Your task to perform on an android device: Clear the cart on bestbuy. Search for logitech g pro on bestbuy, select the first entry, add it to the cart, then select checkout. Image 0: 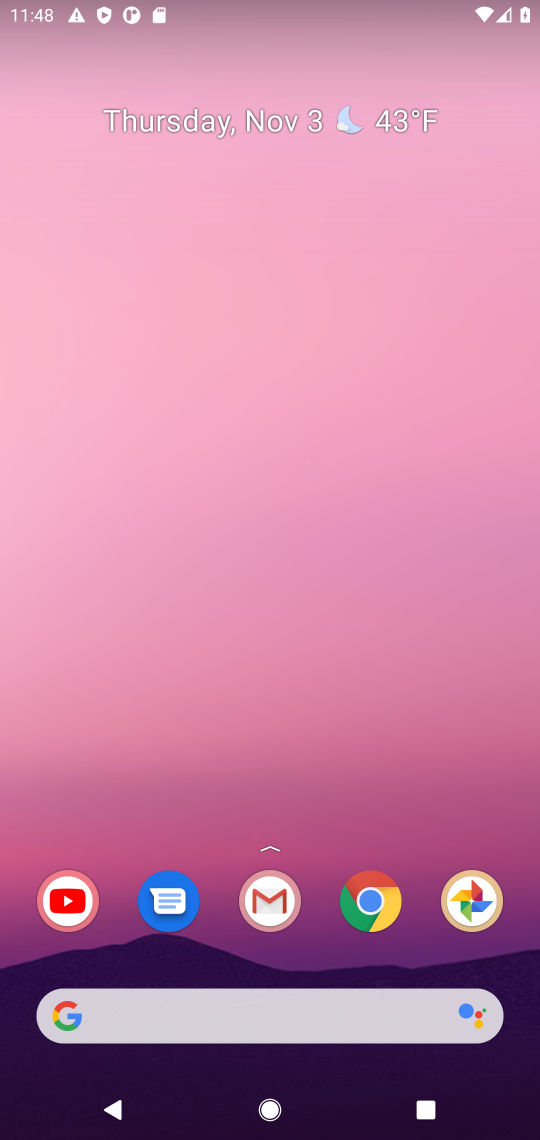
Step 0: click (382, 910)
Your task to perform on an android device: Clear the cart on bestbuy. Search for logitech g pro on bestbuy, select the first entry, add it to the cart, then select checkout. Image 1: 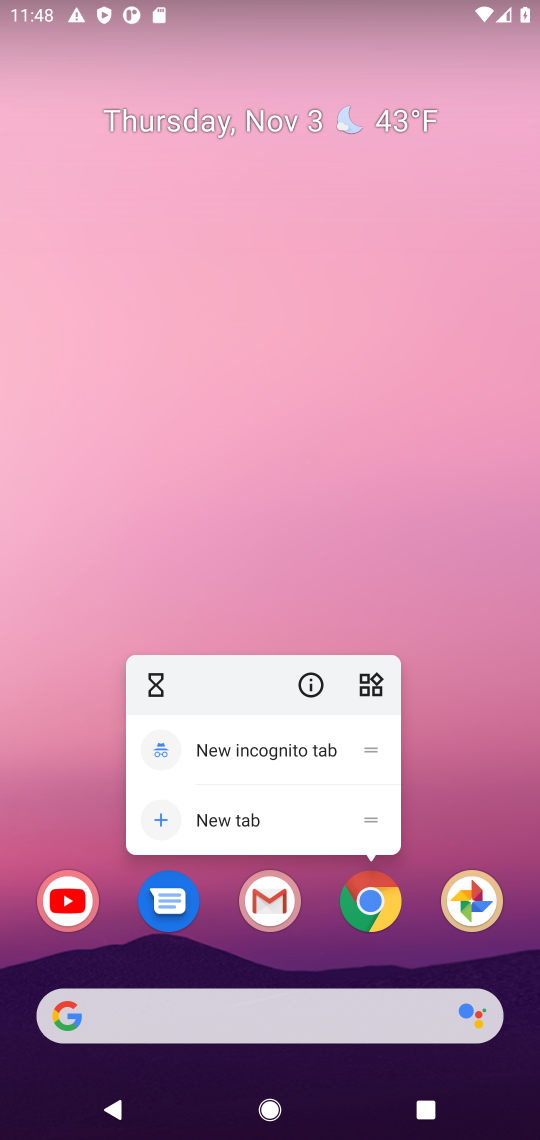
Step 1: click (382, 910)
Your task to perform on an android device: Clear the cart on bestbuy. Search for logitech g pro on bestbuy, select the first entry, add it to the cart, then select checkout. Image 2: 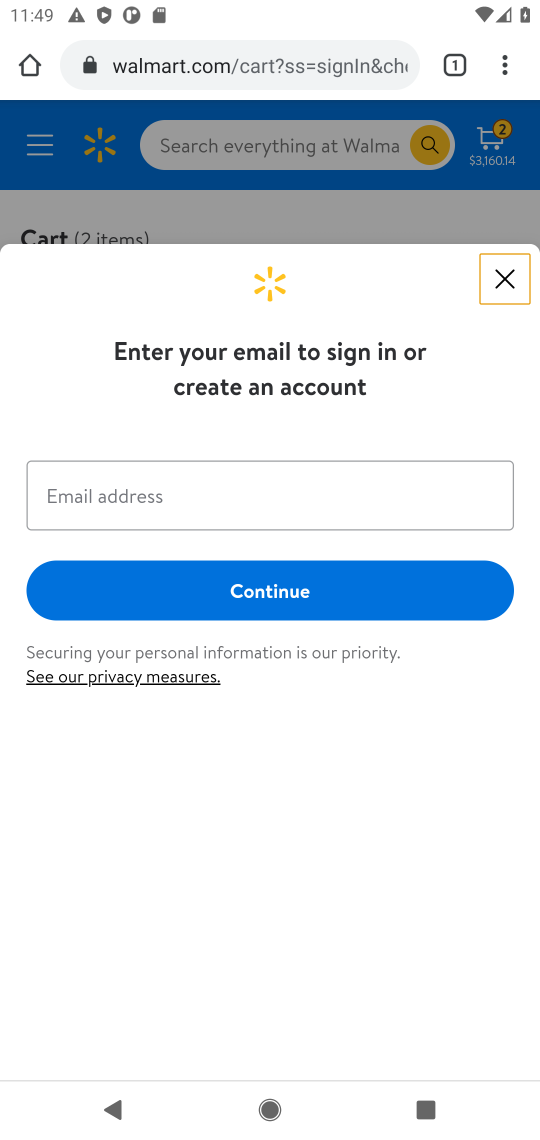
Step 2: click (514, 279)
Your task to perform on an android device: Clear the cart on bestbuy. Search for logitech g pro on bestbuy, select the first entry, add it to the cart, then select checkout. Image 3: 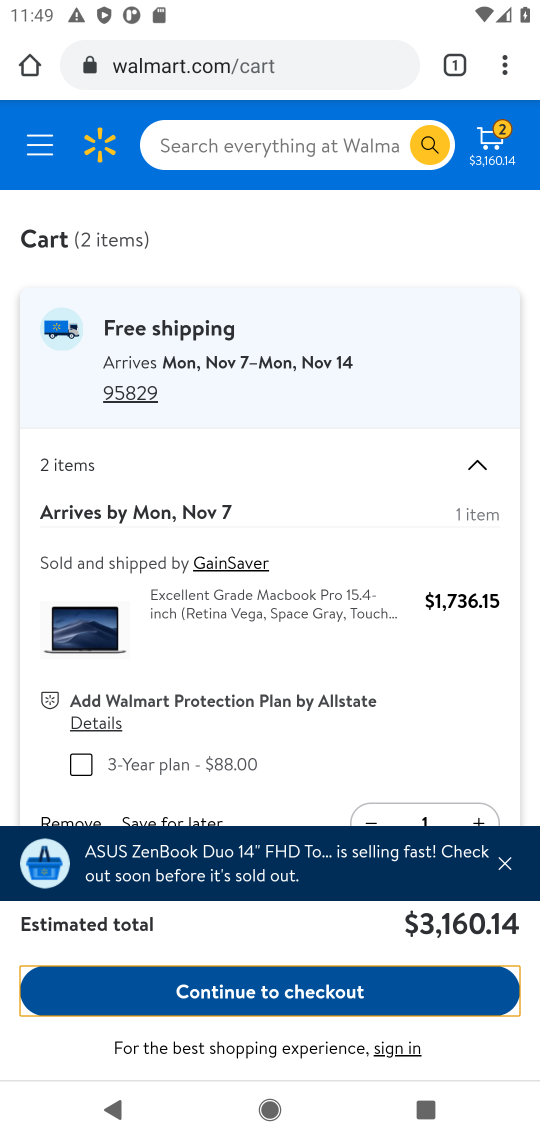
Step 3: click (244, 62)
Your task to perform on an android device: Clear the cart on bestbuy. Search for logitech g pro on bestbuy, select the first entry, add it to the cart, then select checkout. Image 4: 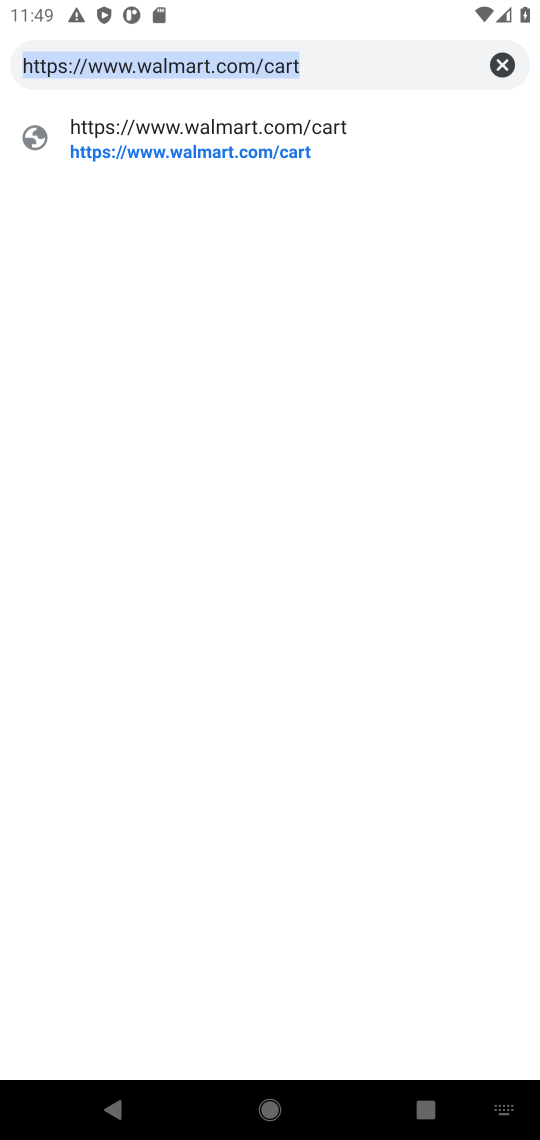
Step 4: click (509, 65)
Your task to perform on an android device: Clear the cart on bestbuy. Search for logitech g pro on bestbuy, select the first entry, add it to the cart, then select checkout. Image 5: 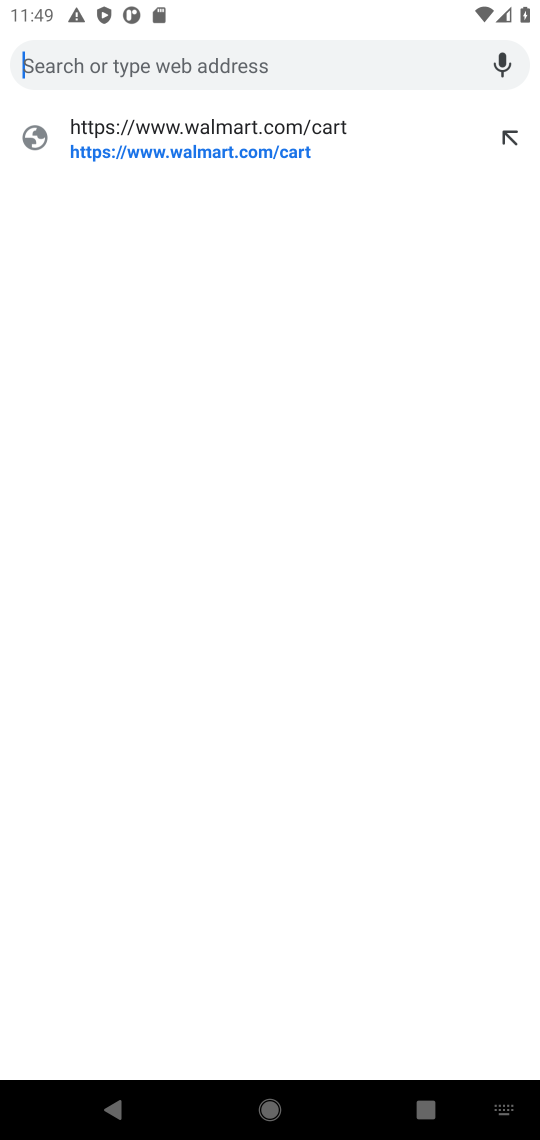
Step 5: type "bestbuy"
Your task to perform on an android device: Clear the cart on bestbuy. Search for logitech g pro on bestbuy, select the first entry, add it to the cart, then select checkout. Image 6: 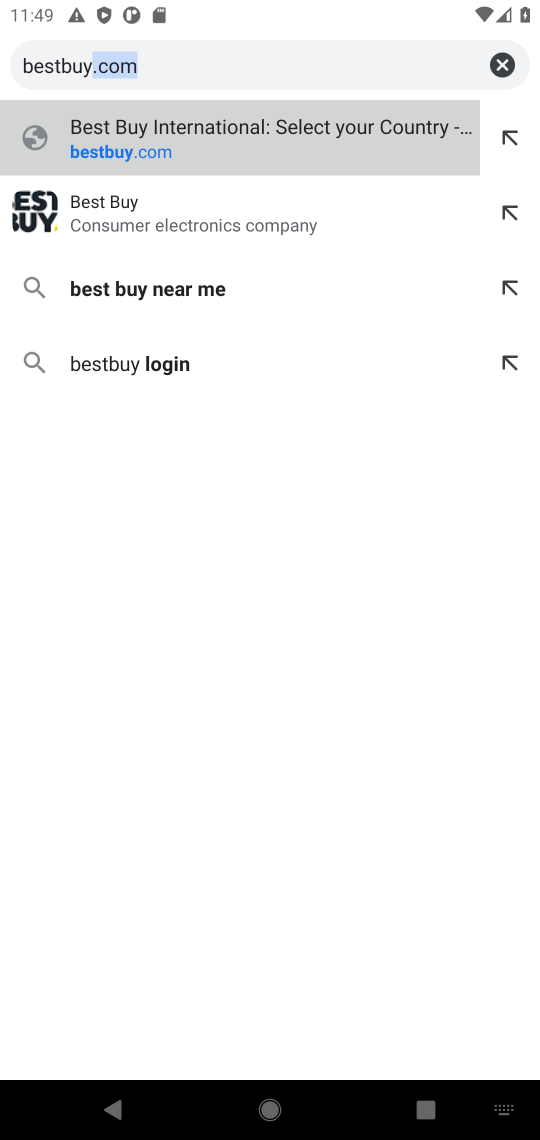
Step 6: press enter
Your task to perform on an android device: Clear the cart on bestbuy. Search for logitech g pro on bestbuy, select the first entry, add it to the cart, then select checkout. Image 7: 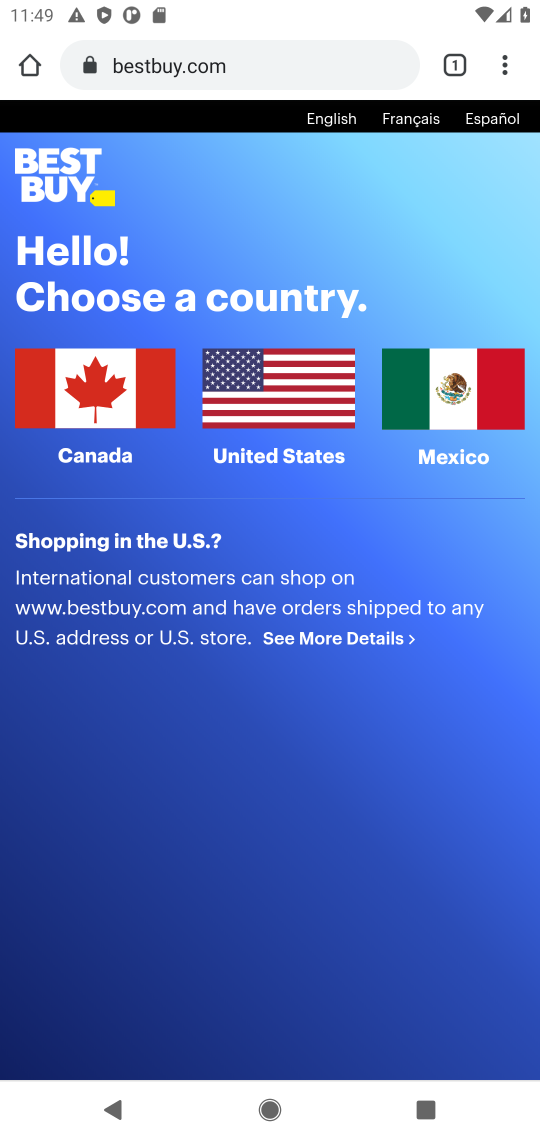
Step 7: click (306, 399)
Your task to perform on an android device: Clear the cart on bestbuy. Search for logitech g pro on bestbuy, select the first entry, add it to the cart, then select checkout. Image 8: 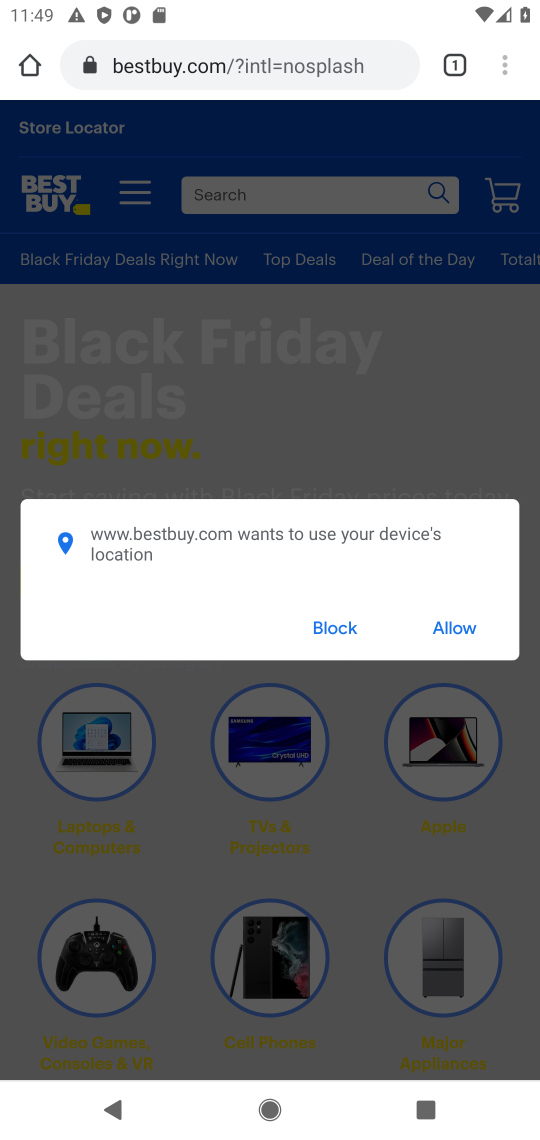
Step 8: click (350, 623)
Your task to perform on an android device: Clear the cart on bestbuy. Search for logitech g pro on bestbuy, select the first entry, add it to the cart, then select checkout. Image 9: 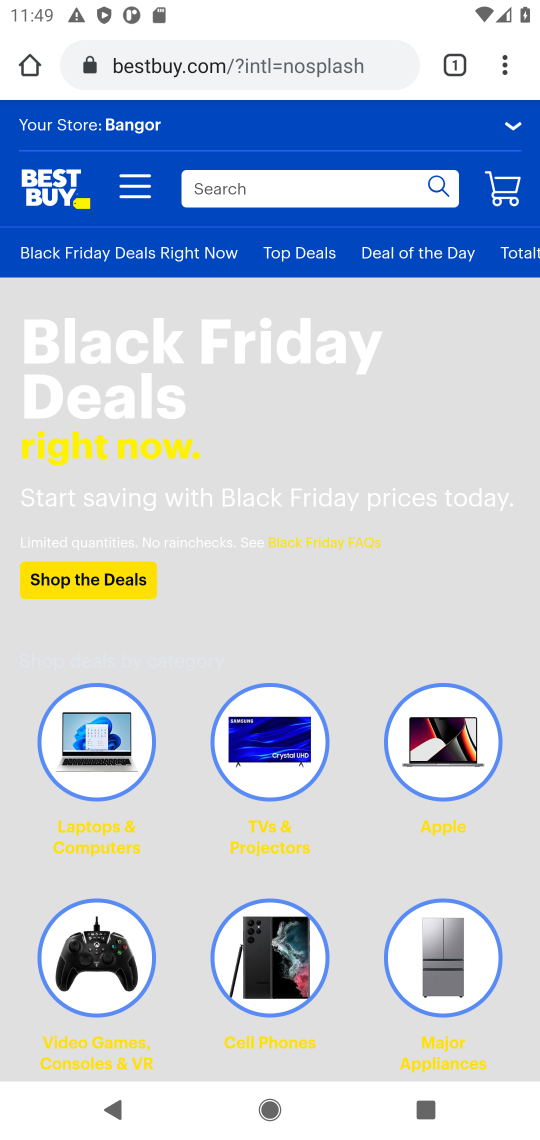
Step 9: click (497, 177)
Your task to perform on an android device: Clear the cart on bestbuy. Search for logitech g pro on bestbuy, select the first entry, add it to the cart, then select checkout. Image 10: 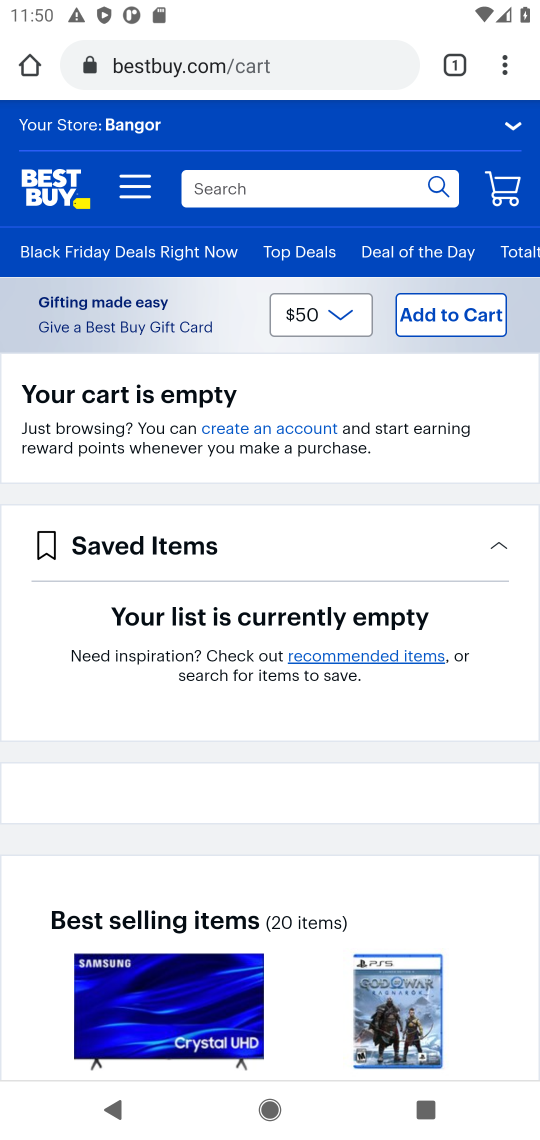
Step 10: click (342, 184)
Your task to perform on an android device: Clear the cart on bestbuy. Search for logitech g pro on bestbuy, select the first entry, add it to the cart, then select checkout. Image 11: 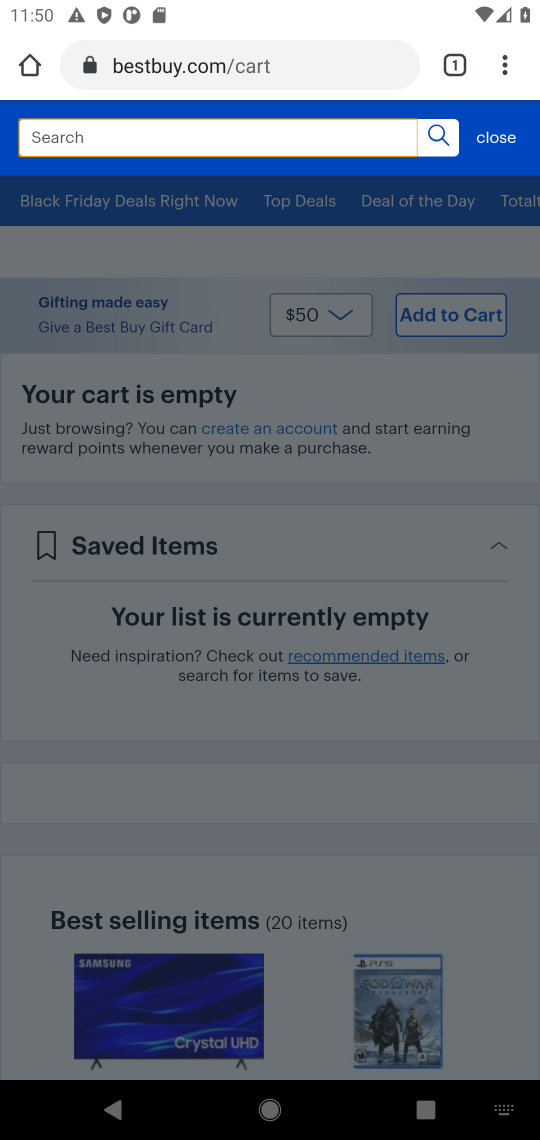
Step 11: type " logitech g pro"
Your task to perform on an android device: Clear the cart on bestbuy. Search for logitech g pro on bestbuy, select the first entry, add it to the cart, then select checkout. Image 12: 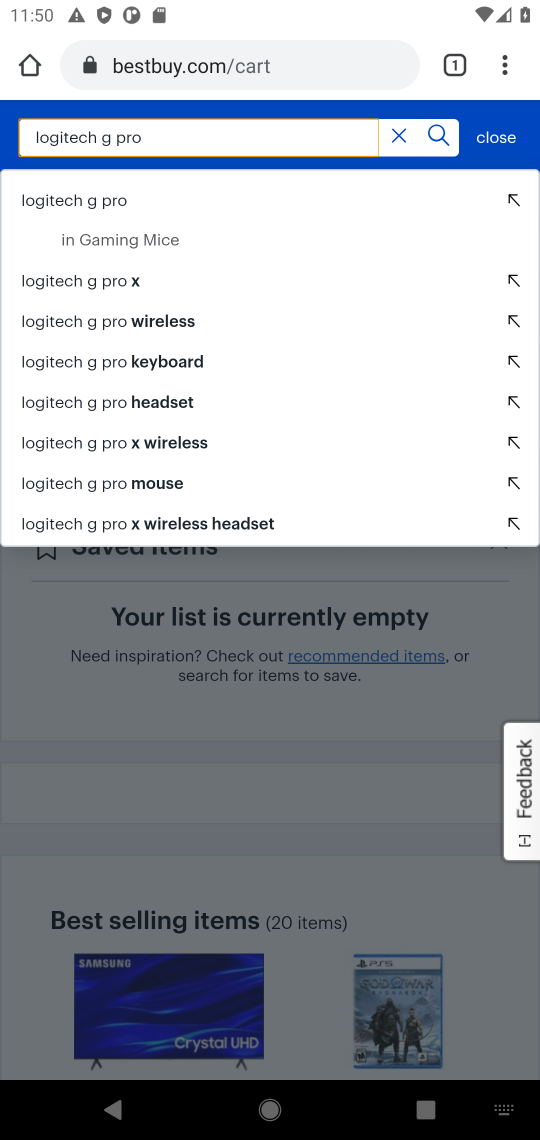
Step 12: click (108, 190)
Your task to perform on an android device: Clear the cart on bestbuy. Search for logitech g pro on bestbuy, select the first entry, add it to the cart, then select checkout. Image 13: 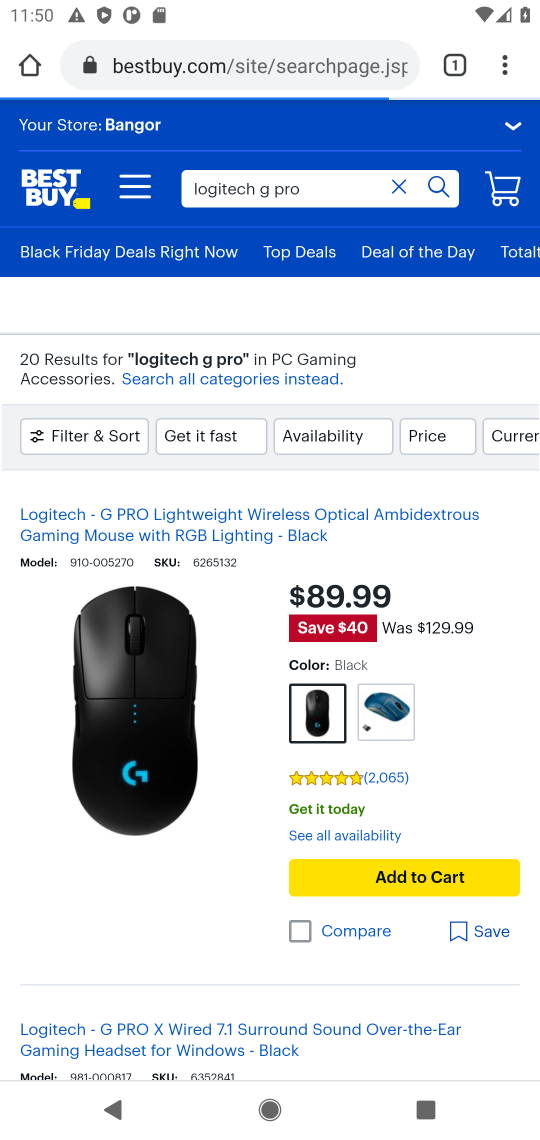
Step 13: click (145, 701)
Your task to perform on an android device: Clear the cart on bestbuy. Search for logitech g pro on bestbuy, select the first entry, add it to the cart, then select checkout. Image 14: 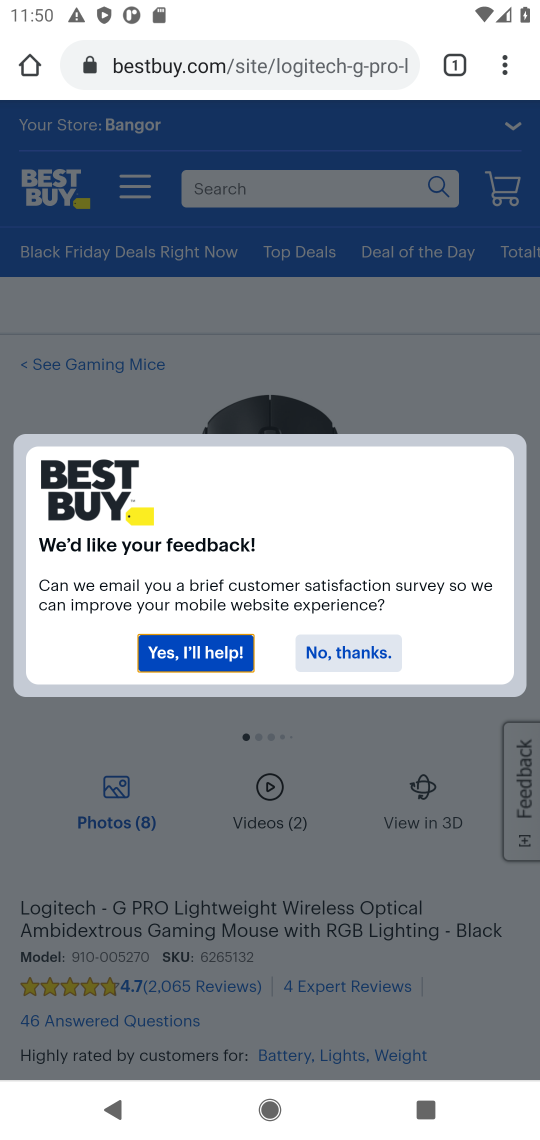
Step 14: click (345, 652)
Your task to perform on an android device: Clear the cart on bestbuy. Search for logitech g pro on bestbuy, select the first entry, add it to the cart, then select checkout. Image 15: 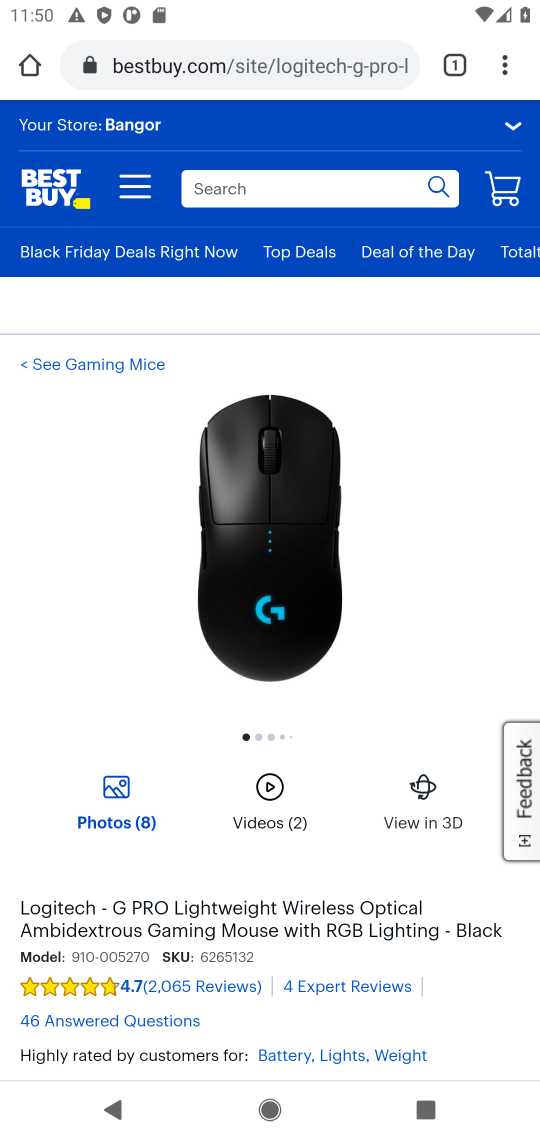
Step 15: drag from (328, 935) to (349, 502)
Your task to perform on an android device: Clear the cart on bestbuy. Search for logitech g pro on bestbuy, select the first entry, add it to the cart, then select checkout. Image 16: 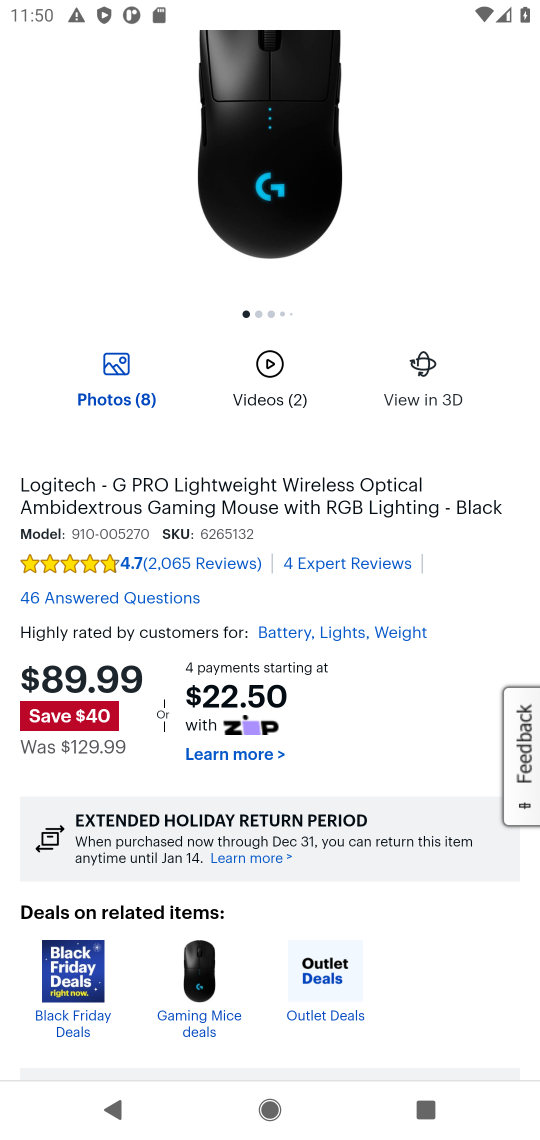
Step 16: drag from (375, 809) to (391, 479)
Your task to perform on an android device: Clear the cart on bestbuy. Search for logitech g pro on bestbuy, select the first entry, add it to the cart, then select checkout. Image 17: 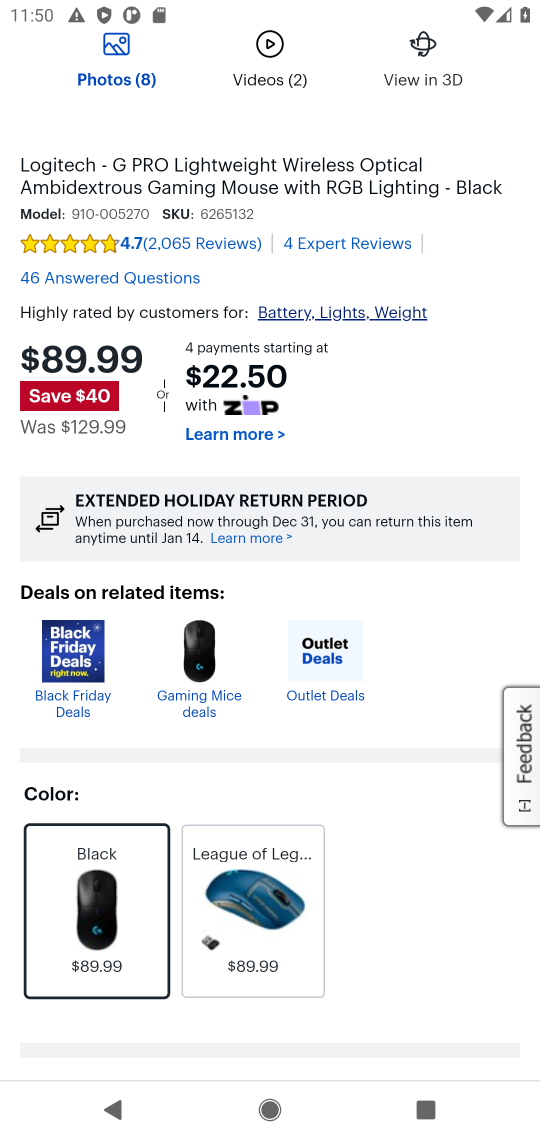
Step 17: drag from (448, 883) to (433, 413)
Your task to perform on an android device: Clear the cart on bestbuy. Search for logitech g pro on bestbuy, select the first entry, add it to the cart, then select checkout. Image 18: 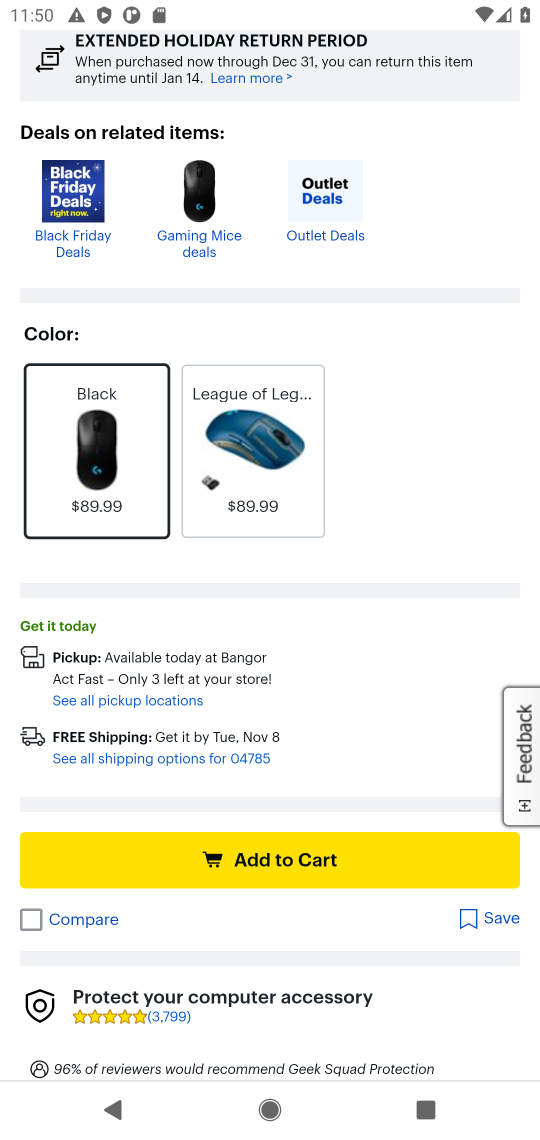
Step 18: click (310, 857)
Your task to perform on an android device: Clear the cart on bestbuy. Search for logitech g pro on bestbuy, select the first entry, add it to the cart, then select checkout. Image 19: 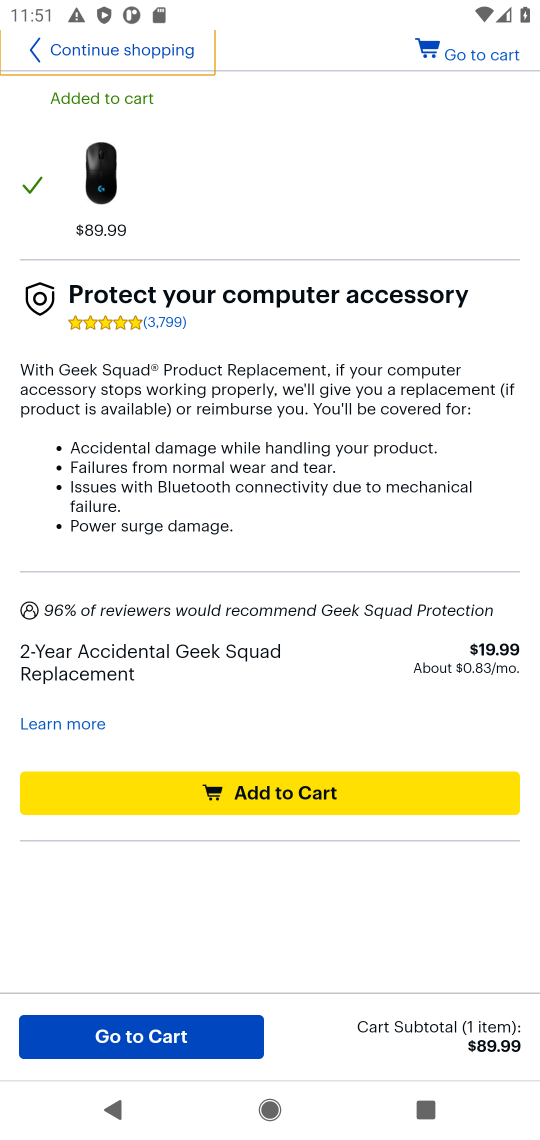
Step 19: click (229, 1035)
Your task to perform on an android device: Clear the cart on bestbuy. Search for logitech g pro on bestbuy, select the first entry, add it to the cart, then select checkout. Image 20: 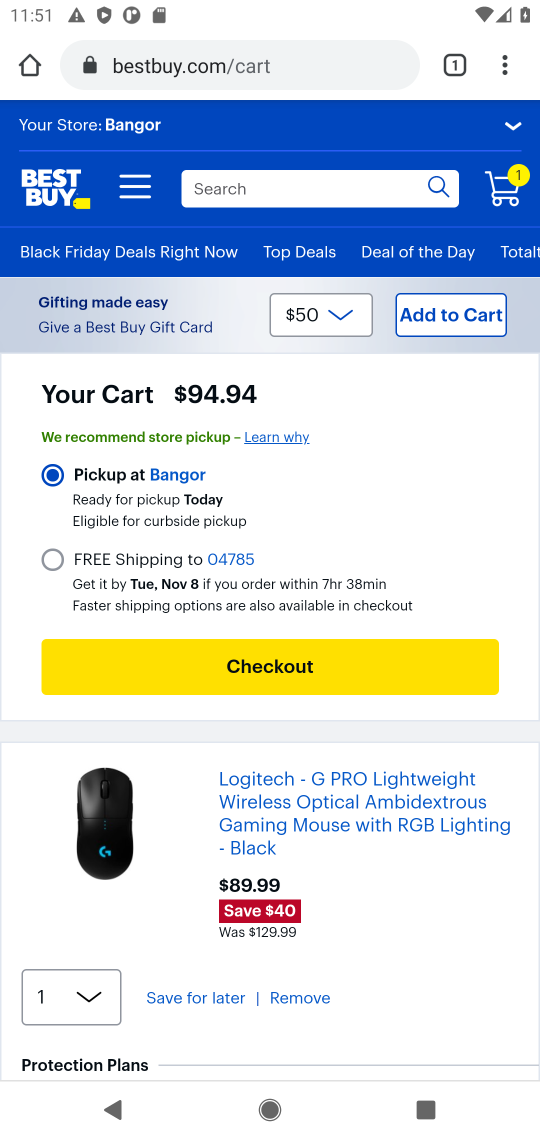
Step 20: click (282, 654)
Your task to perform on an android device: Clear the cart on bestbuy. Search for logitech g pro on bestbuy, select the first entry, add it to the cart, then select checkout. Image 21: 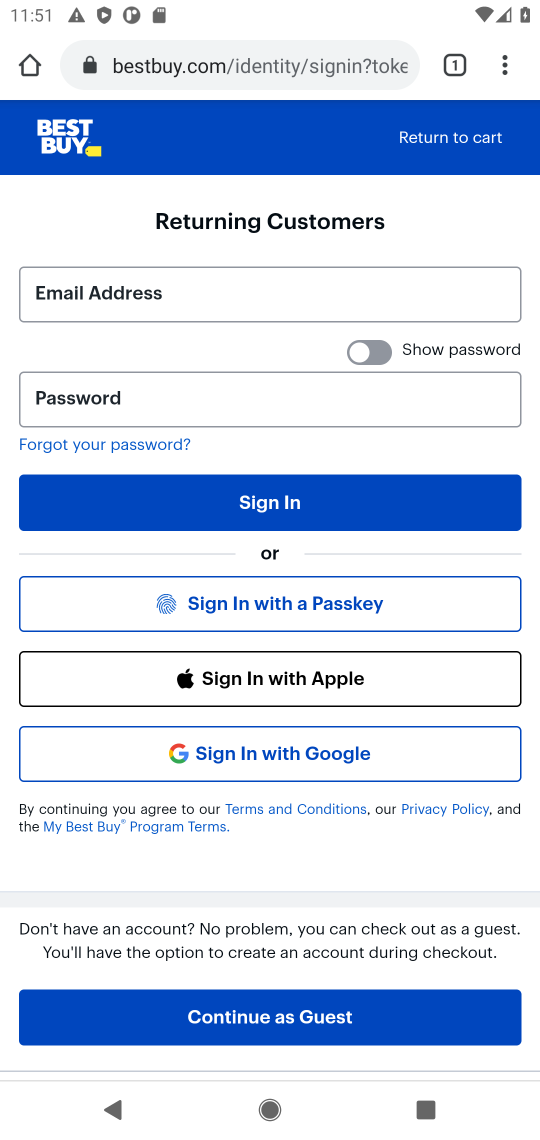
Step 21: task complete